Your task to perform on an android device: toggle translation in the chrome app Image 0: 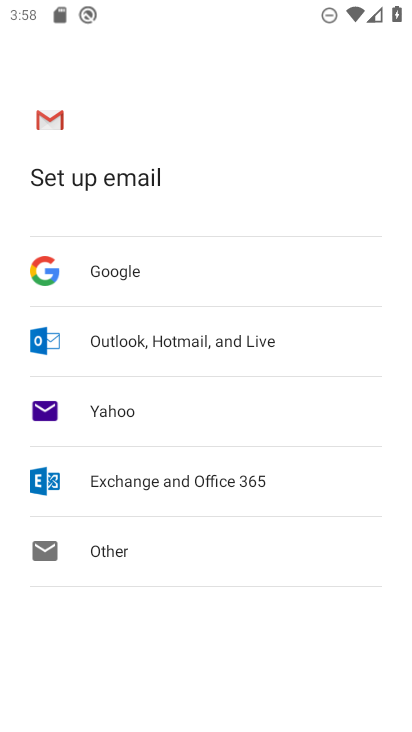
Step 0: press home button
Your task to perform on an android device: toggle translation in the chrome app Image 1: 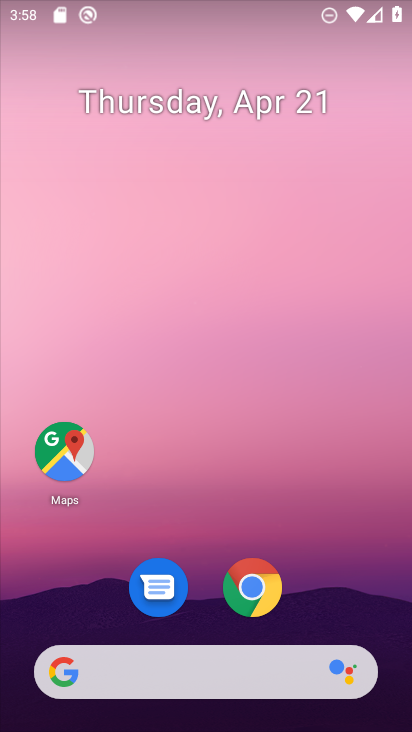
Step 1: click (253, 589)
Your task to perform on an android device: toggle translation in the chrome app Image 2: 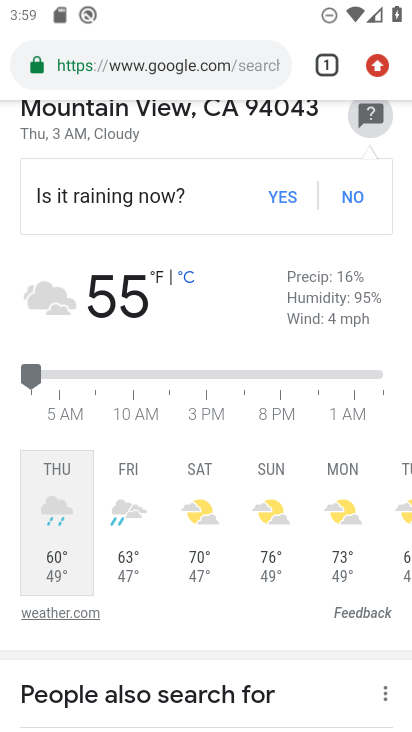
Step 2: click (380, 70)
Your task to perform on an android device: toggle translation in the chrome app Image 3: 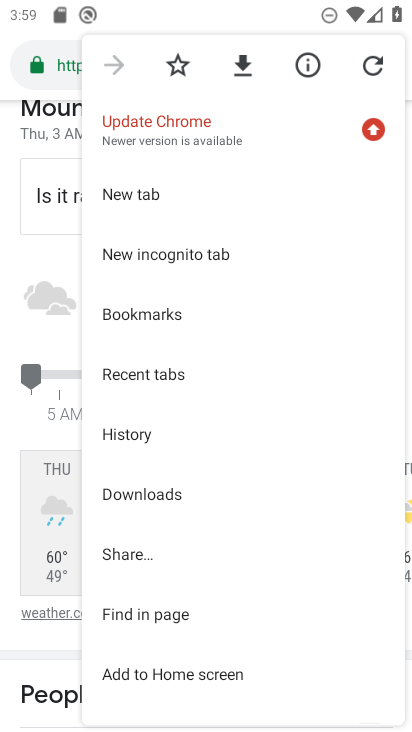
Step 3: drag from (264, 614) to (280, 292)
Your task to perform on an android device: toggle translation in the chrome app Image 4: 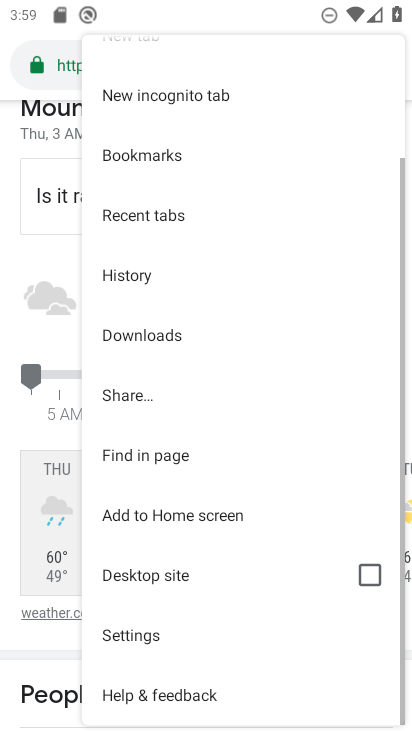
Step 4: click (159, 633)
Your task to perform on an android device: toggle translation in the chrome app Image 5: 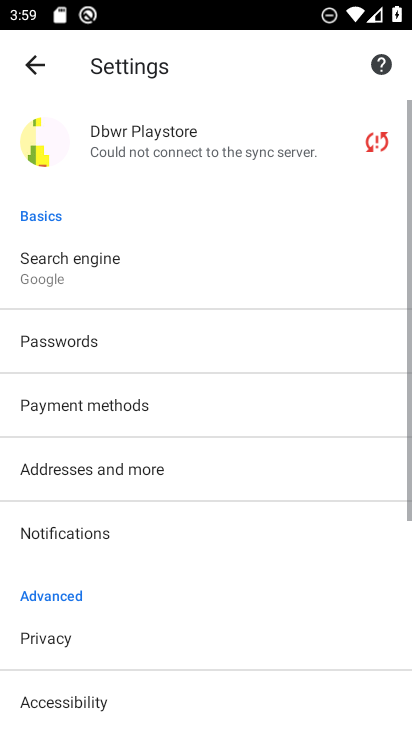
Step 5: drag from (226, 556) to (243, 298)
Your task to perform on an android device: toggle translation in the chrome app Image 6: 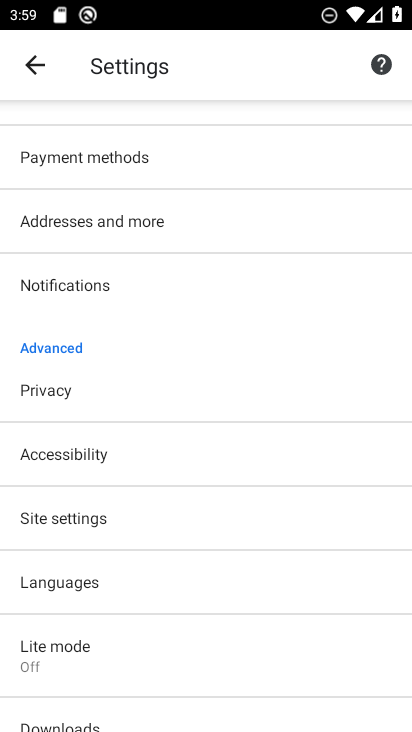
Step 6: click (81, 580)
Your task to perform on an android device: toggle translation in the chrome app Image 7: 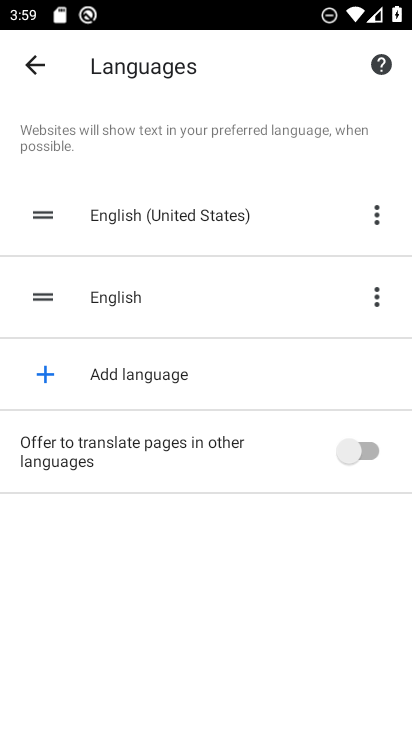
Step 7: click (355, 447)
Your task to perform on an android device: toggle translation in the chrome app Image 8: 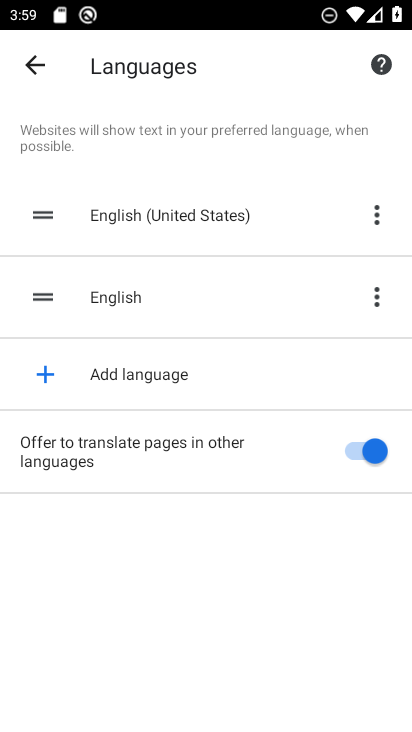
Step 8: task complete